Your task to perform on an android device: change keyboard looks Image 0: 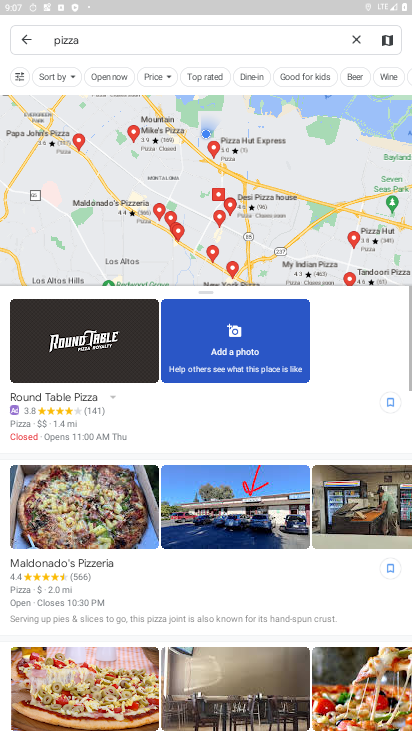
Step 0: press home button
Your task to perform on an android device: change keyboard looks Image 1: 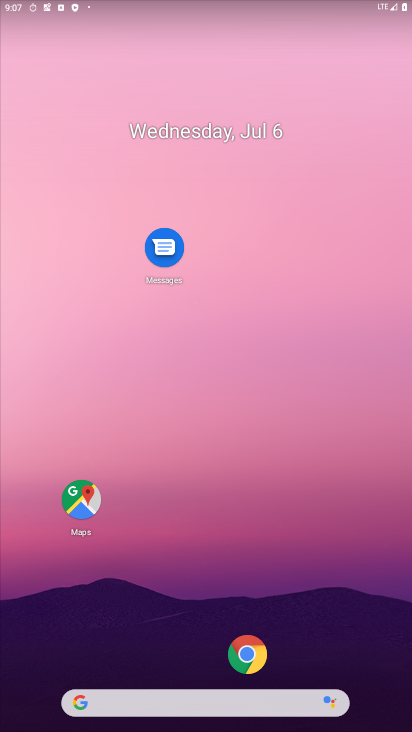
Step 1: drag from (182, 13) to (94, 616)
Your task to perform on an android device: change keyboard looks Image 2: 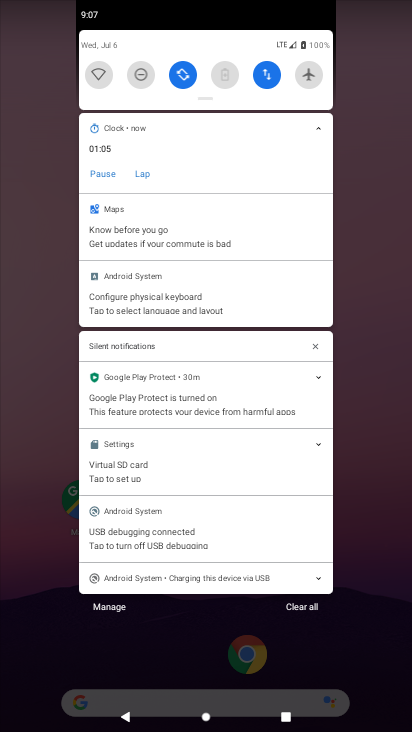
Step 2: drag from (204, 52) to (216, 467)
Your task to perform on an android device: change keyboard looks Image 3: 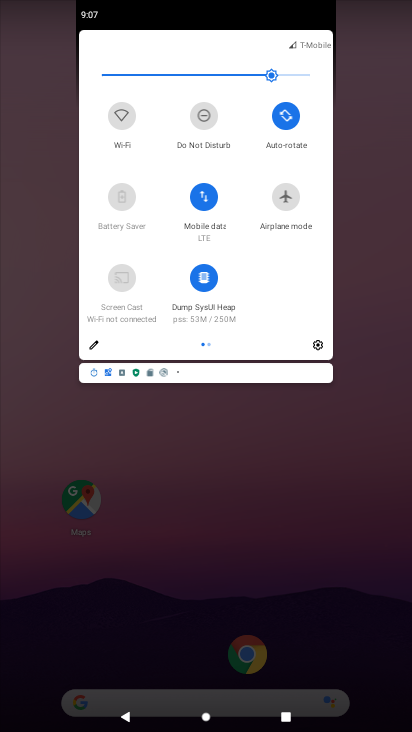
Step 3: click (316, 352)
Your task to perform on an android device: change keyboard looks Image 4: 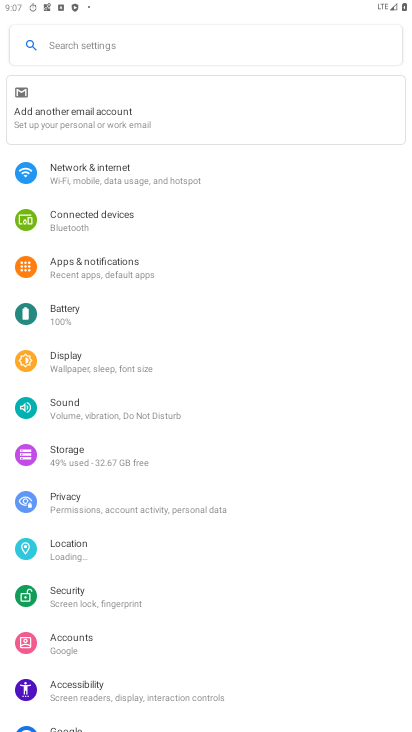
Step 4: drag from (97, 696) to (169, 184)
Your task to perform on an android device: change keyboard looks Image 5: 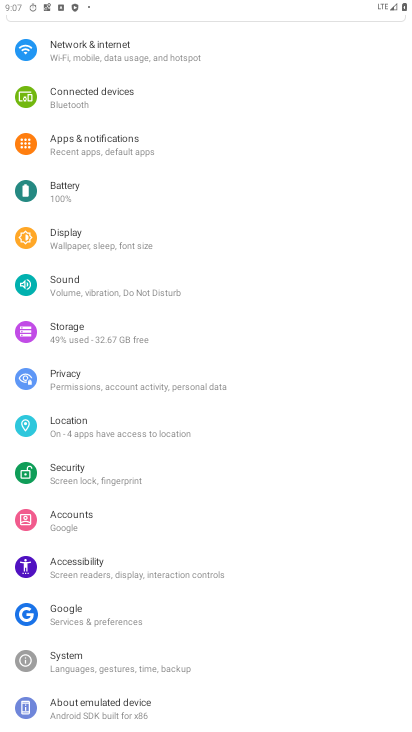
Step 5: click (97, 666)
Your task to perform on an android device: change keyboard looks Image 6: 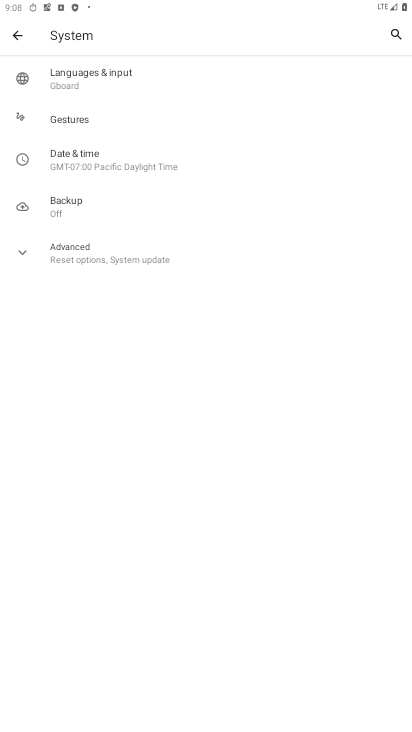
Step 6: click (154, 78)
Your task to perform on an android device: change keyboard looks Image 7: 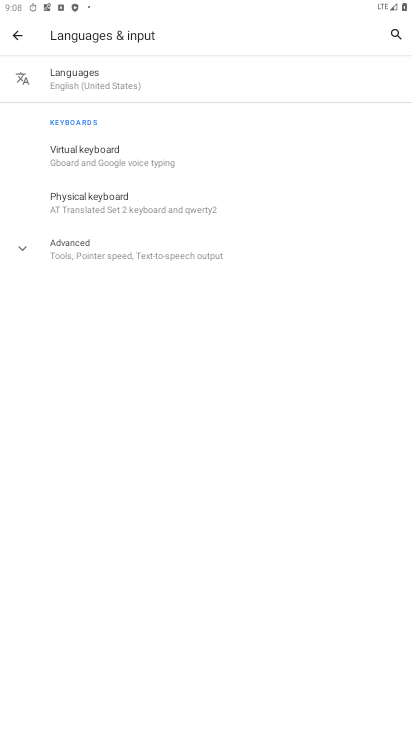
Step 7: click (98, 158)
Your task to perform on an android device: change keyboard looks Image 8: 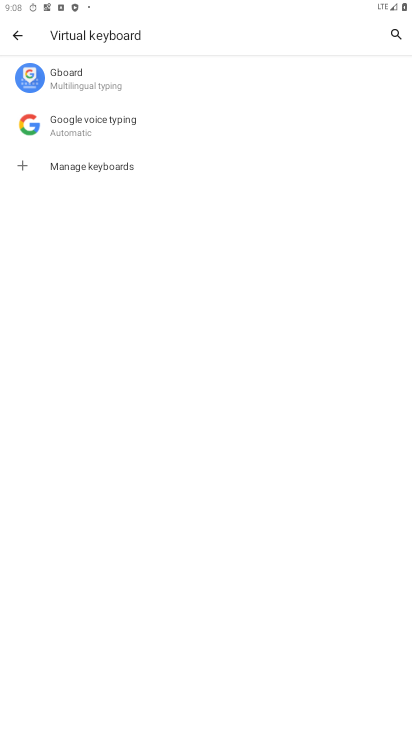
Step 8: click (96, 129)
Your task to perform on an android device: change keyboard looks Image 9: 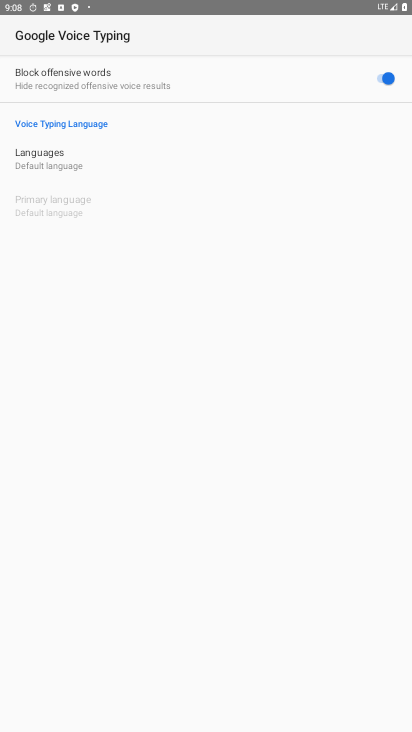
Step 9: press back button
Your task to perform on an android device: change keyboard looks Image 10: 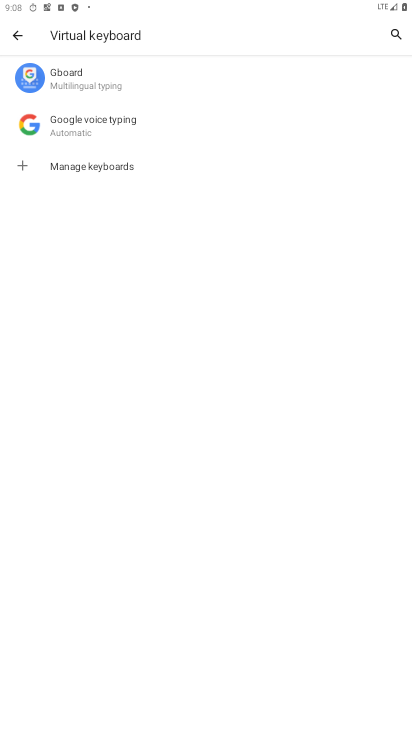
Step 10: click (142, 87)
Your task to perform on an android device: change keyboard looks Image 11: 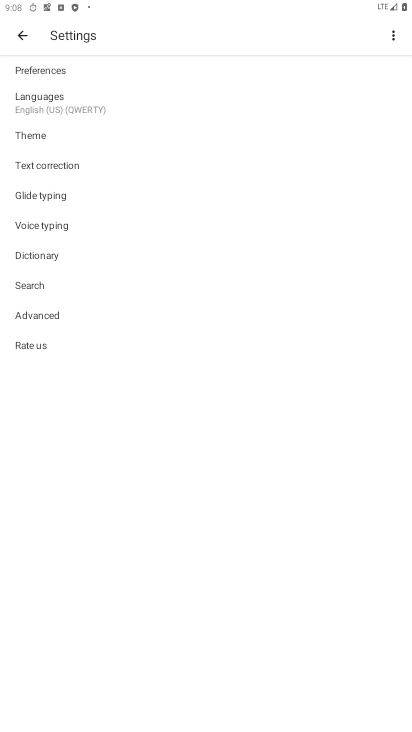
Step 11: click (59, 138)
Your task to perform on an android device: change keyboard looks Image 12: 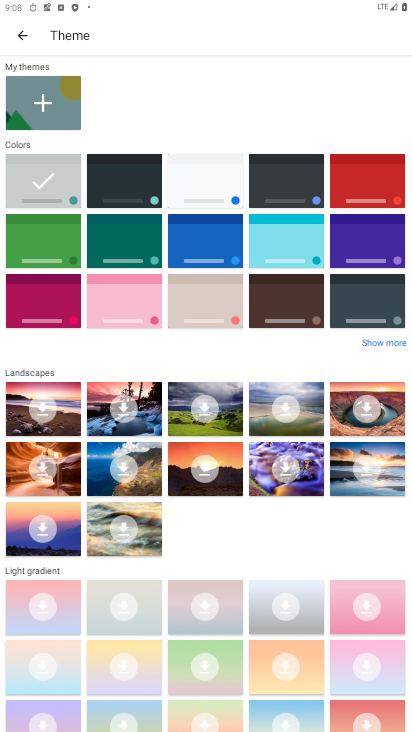
Step 12: click (119, 669)
Your task to perform on an android device: change keyboard looks Image 13: 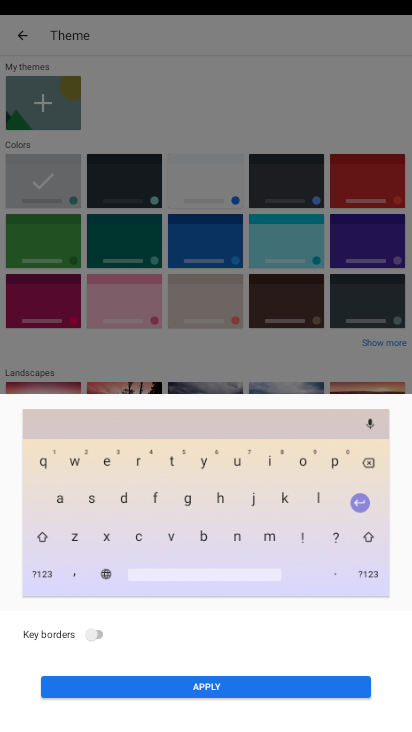
Step 13: click (104, 636)
Your task to perform on an android device: change keyboard looks Image 14: 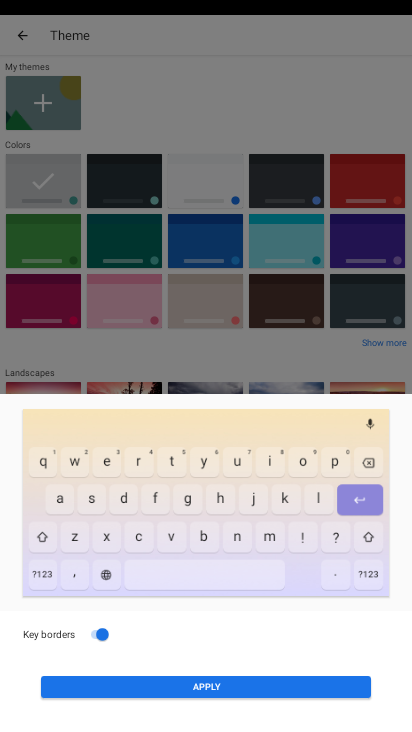
Step 14: click (264, 687)
Your task to perform on an android device: change keyboard looks Image 15: 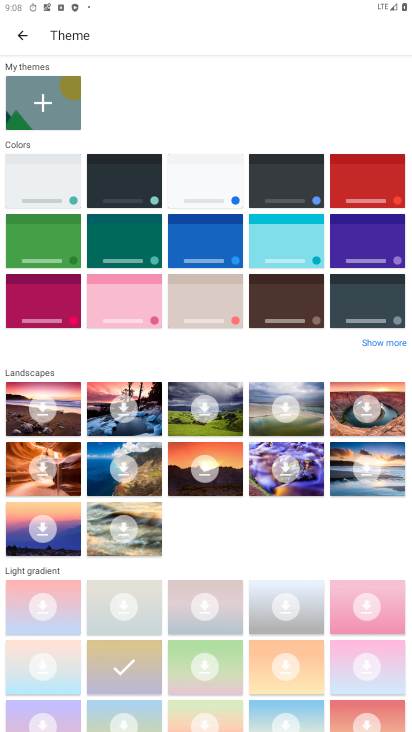
Step 15: task complete